Your task to perform on an android device: Do I have any events this weekend? Image 0: 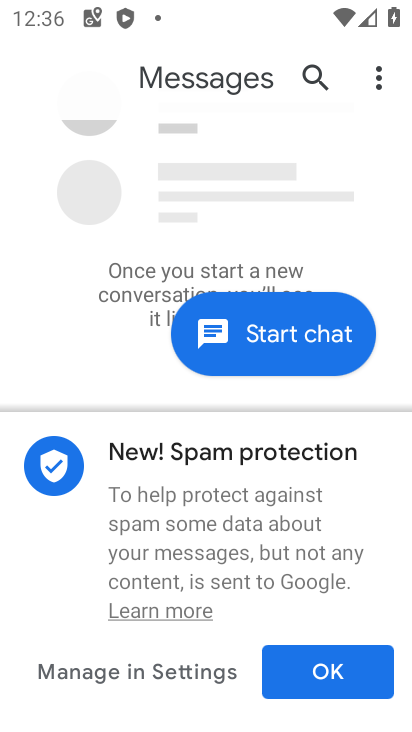
Step 0: press home button
Your task to perform on an android device: Do I have any events this weekend? Image 1: 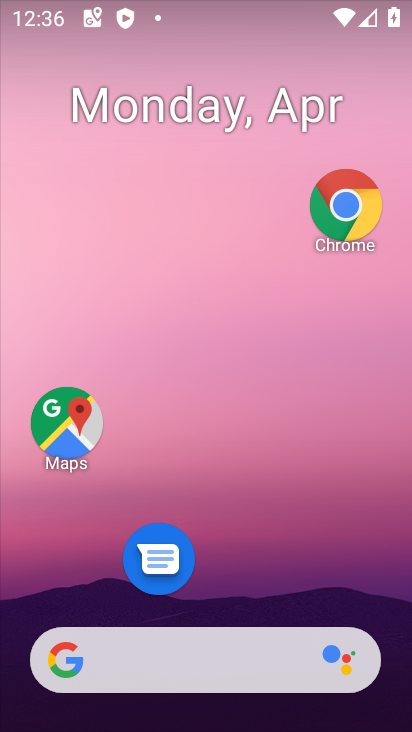
Step 1: drag from (286, 546) to (208, 178)
Your task to perform on an android device: Do I have any events this weekend? Image 2: 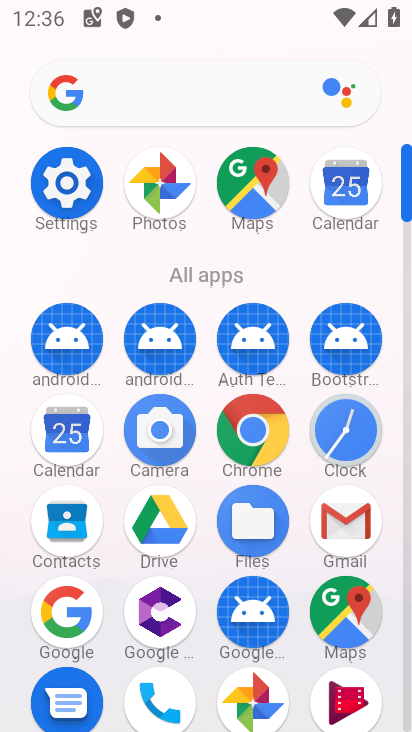
Step 2: click (70, 443)
Your task to perform on an android device: Do I have any events this weekend? Image 3: 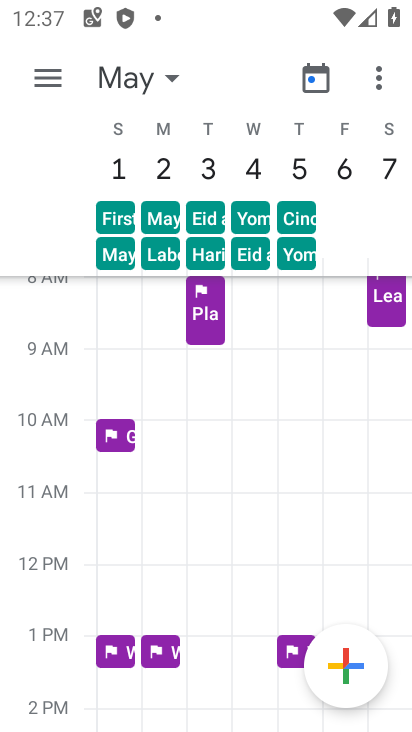
Step 3: click (152, 81)
Your task to perform on an android device: Do I have any events this weekend? Image 4: 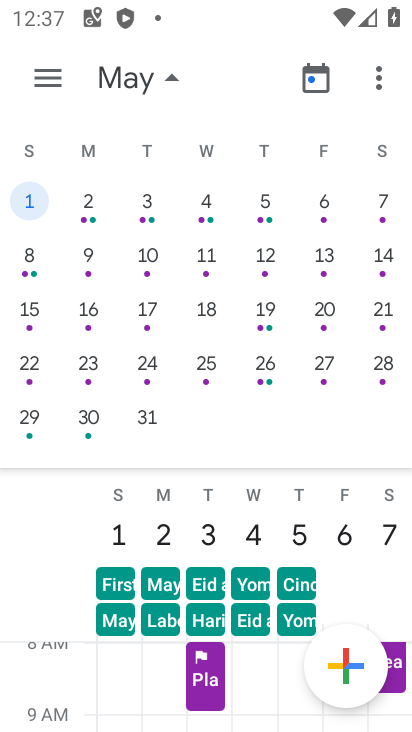
Step 4: drag from (56, 358) to (380, 385)
Your task to perform on an android device: Do I have any events this weekend? Image 5: 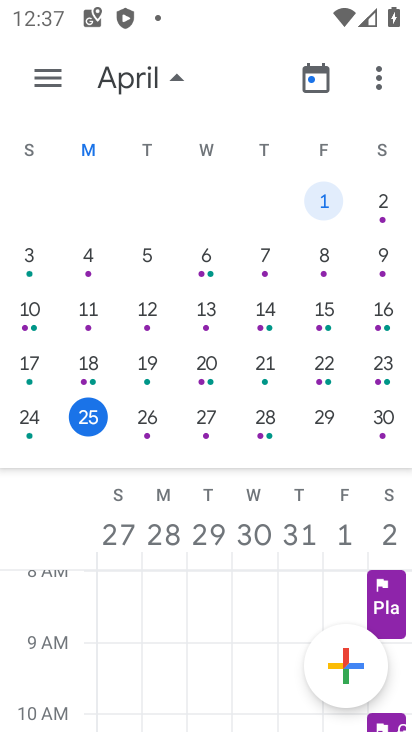
Step 5: click (163, 87)
Your task to perform on an android device: Do I have any events this weekend? Image 6: 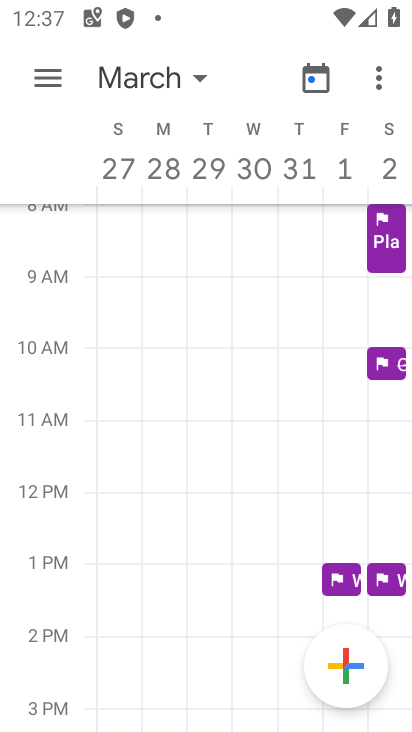
Step 6: task complete